Your task to perform on an android device: change the clock display to show seconds Image 0: 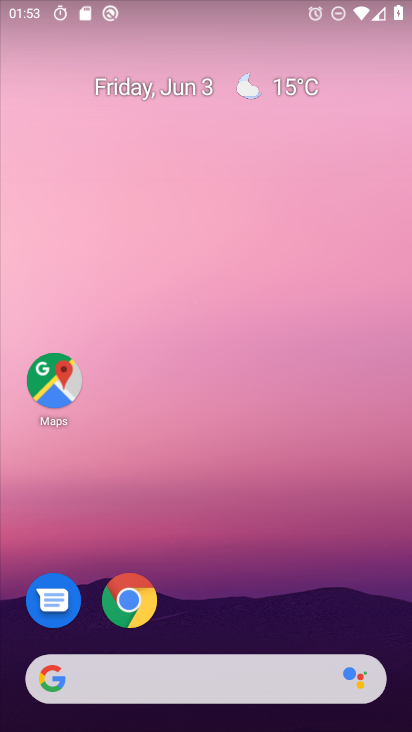
Step 0: drag from (226, 598) to (266, 101)
Your task to perform on an android device: change the clock display to show seconds Image 1: 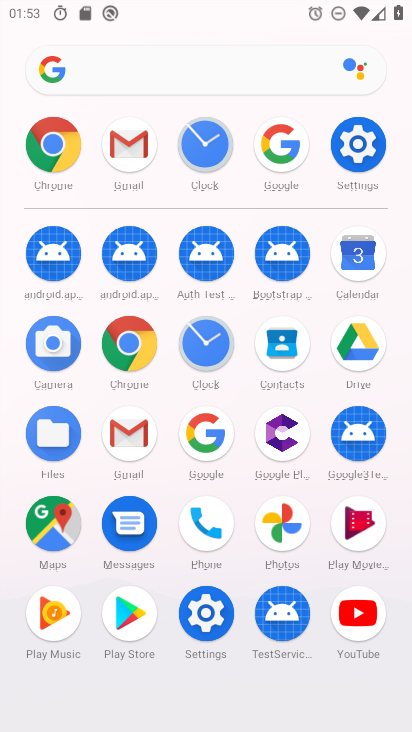
Step 1: click (204, 349)
Your task to perform on an android device: change the clock display to show seconds Image 2: 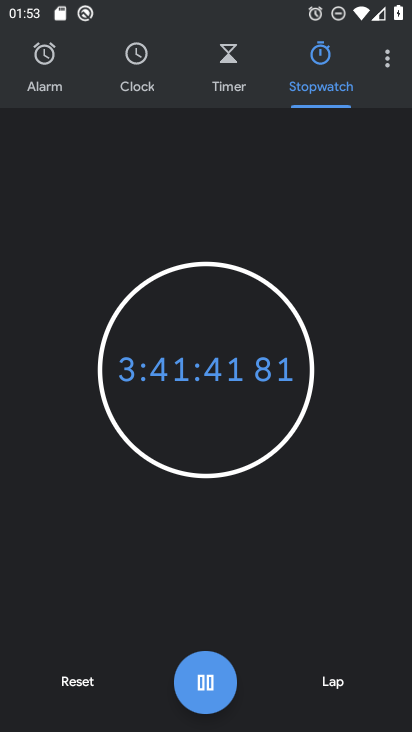
Step 2: click (381, 60)
Your task to perform on an android device: change the clock display to show seconds Image 3: 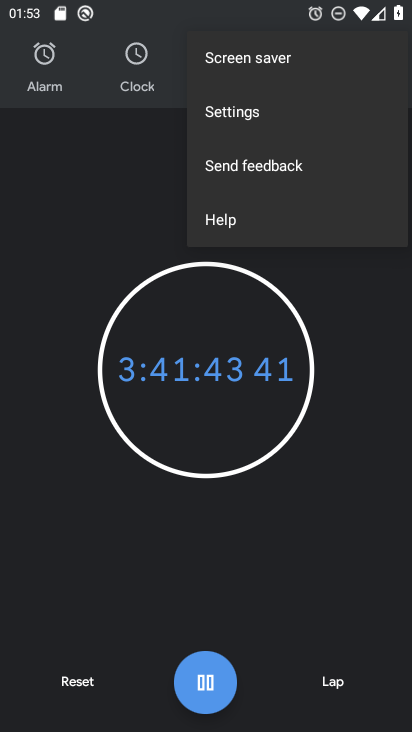
Step 3: click (275, 107)
Your task to perform on an android device: change the clock display to show seconds Image 4: 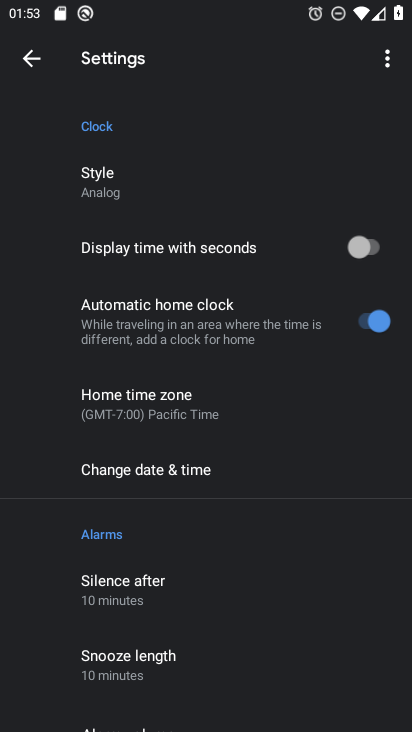
Step 4: click (360, 258)
Your task to perform on an android device: change the clock display to show seconds Image 5: 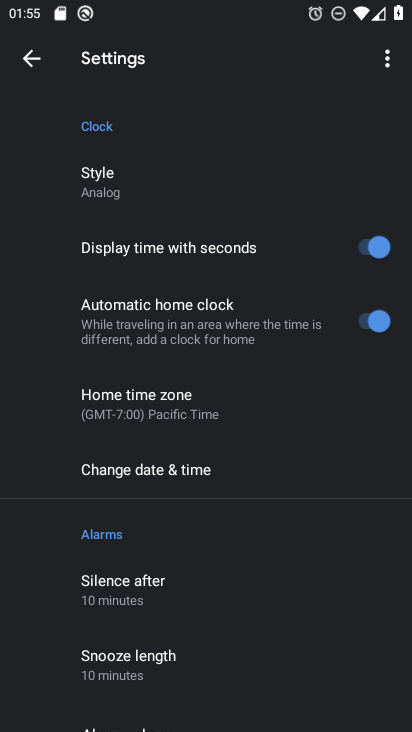
Step 5: task complete